Your task to perform on an android device: Go to ESPN.com Image 0: 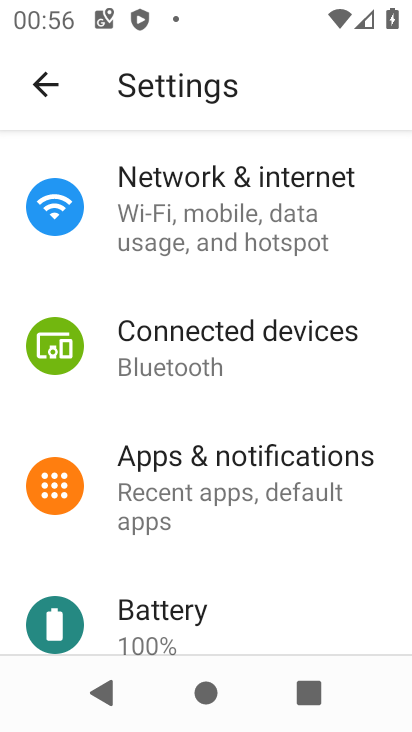
Step 0: press home button
Your task to perform on an android device: Go to ESPN.com Image 1: 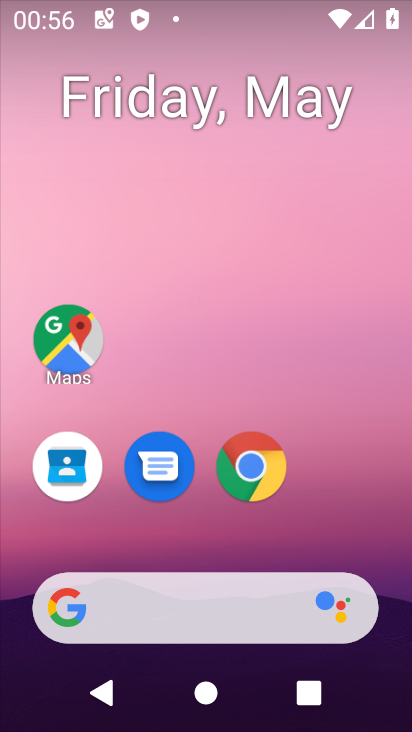
Step 1: click (243, 474)
Your task to perform on an android device: Go to ESPN.com Image 2: 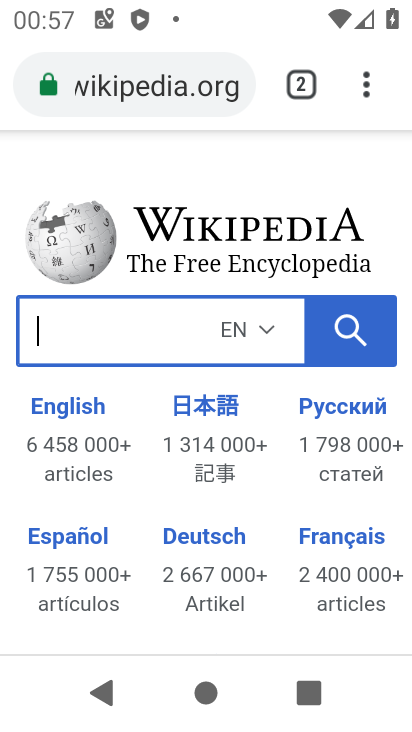
Step 2: press back button
Your task to perform on an android device: Go to ESPN.com Image 3: 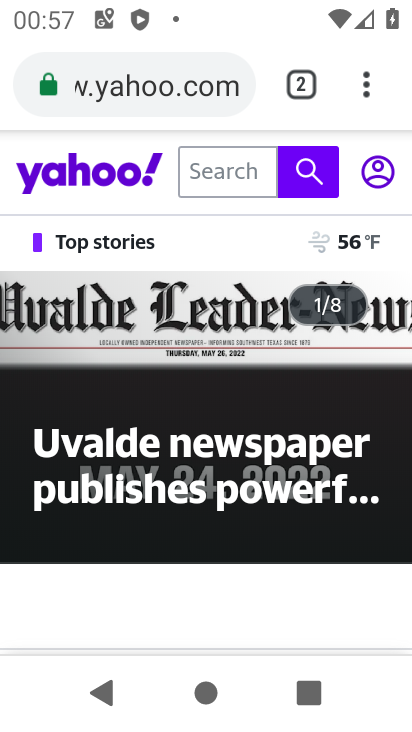
Step 3: press back button
Your task to perform on an android device: Go to ESPN.com Image 4: 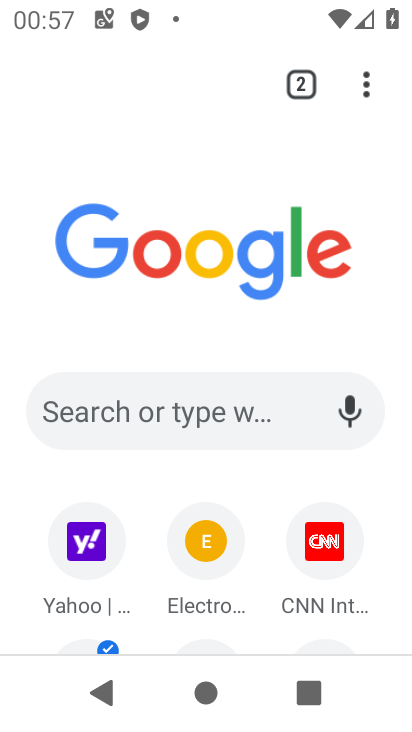
Step 4: drag from (251, 599) to (265, 338)
Your task to perform on an android device: Go to ESPN.com Image 5: 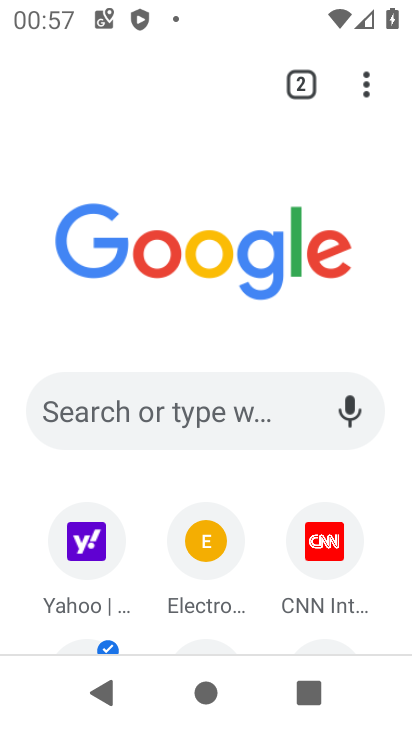
Step 5: drag from (253, 569) to (285, 274)
Your task to perform on an android device: Go to ESPN.com Image 6: 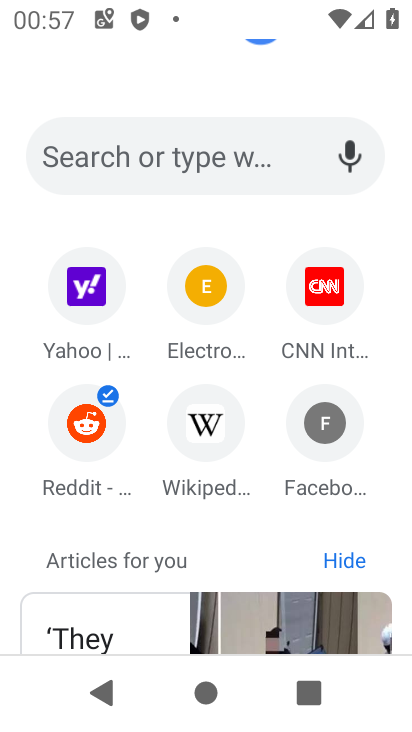
Step 6: click (216, 143)
Your task to perform on an android device: Go to ESPN.com Image 7: 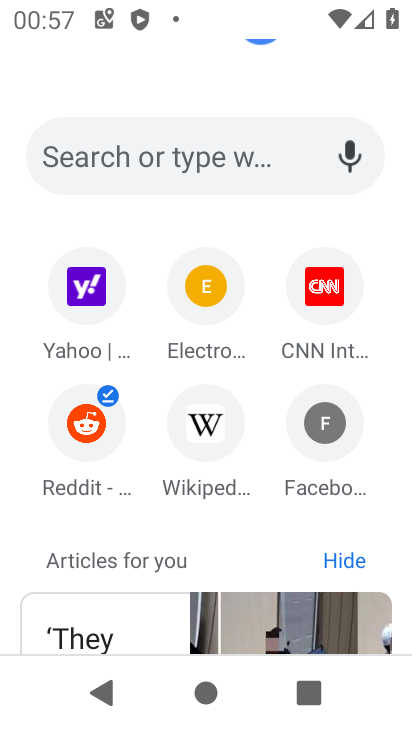
Step 7: type "www.espn.com"
Your task to perform on an android device: Go to ESPN.com Image 8: 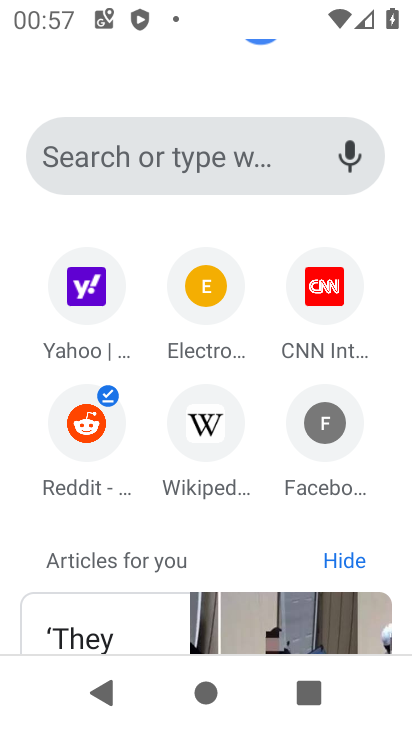
Step 8: click (226, 171)
Your task to perform on an android device: Go to ESPN.com Image 9: 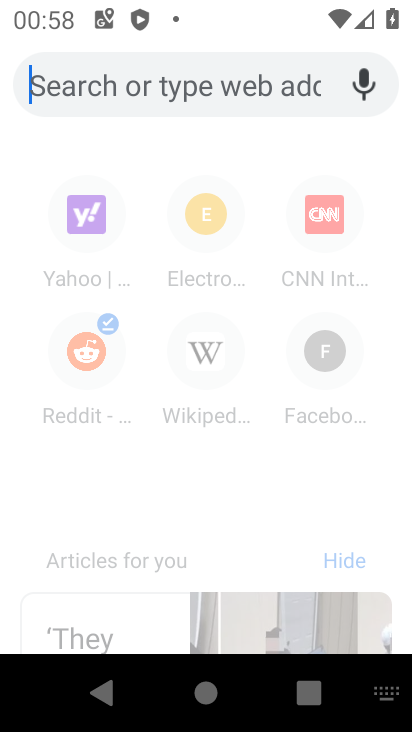
Step 9: type "www.espn.com"
Your task to perform on an android device: Go to ESPN.com Image 10: 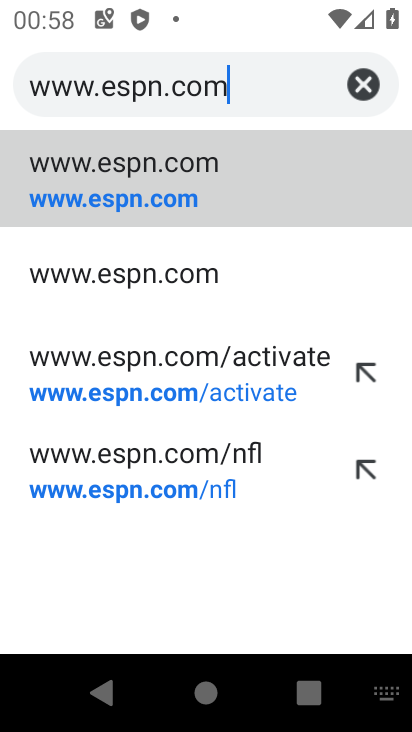
Step 10: click (155, 196)
Your task to perform on an android device: Go to ESPN.com Image 11: 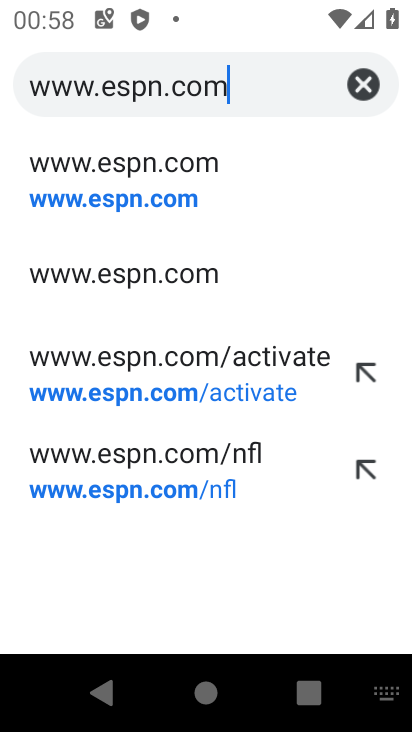
Step 11: click (148, 200)
Your task to perform on an android device: Go to ESPN.com Image 12: 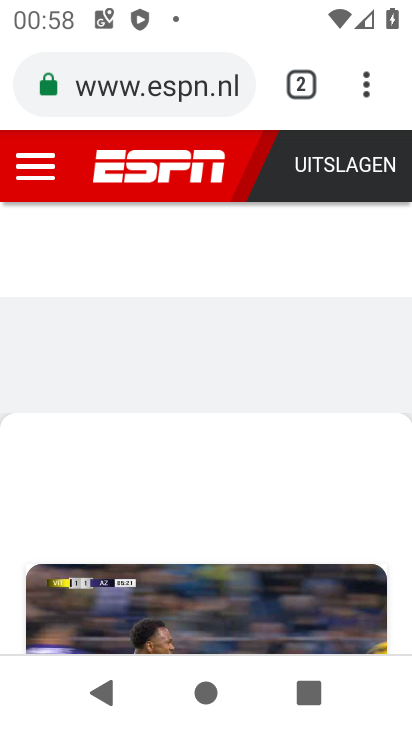
Step 12: task complete